Your task to perform on an android device: snooze an email in the gmail app Image 0: 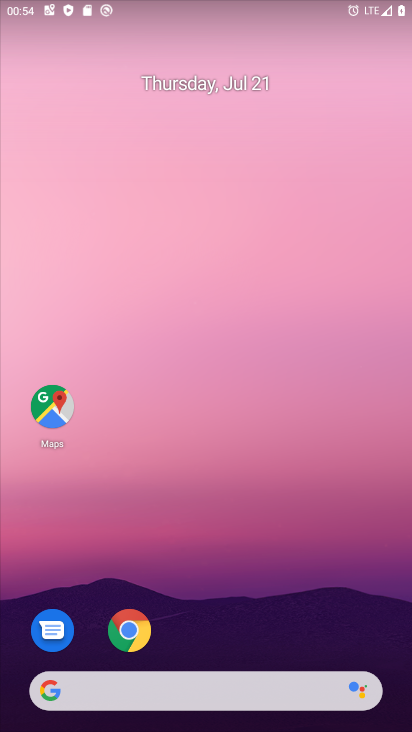
Step 0: drag from (151, 616) to (210, 252)
Your task to perform on an android device: snooze an email in the gmail app Image 1: 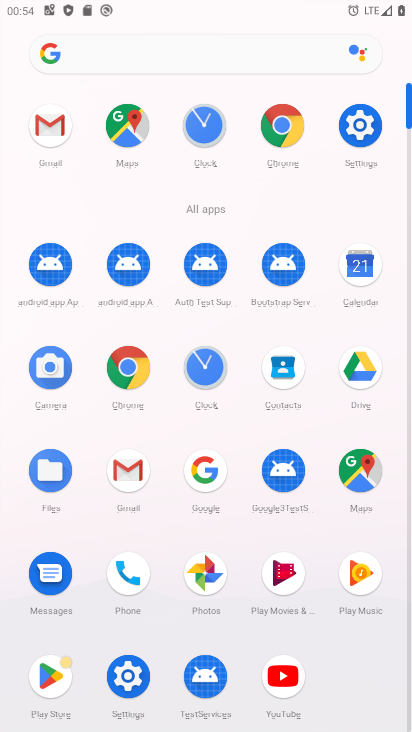
Step 1: click (61, 127)
Your task to perform on an android device: snooze an email in the gmail app Image 2: 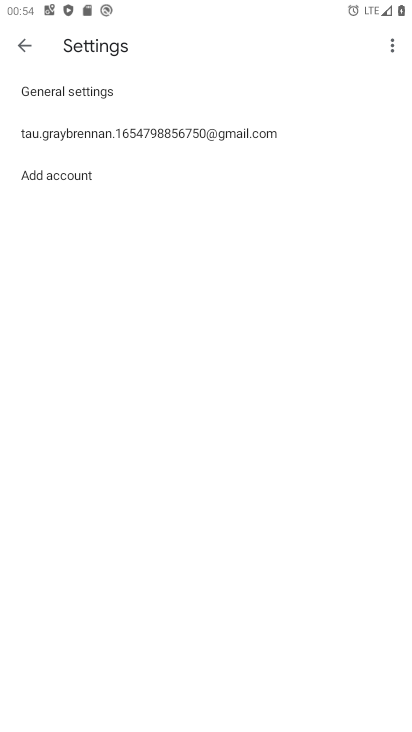
Step 2: click (32, 46)
Your task to perform on an android device: snooze an email in the gmail app Image 3: 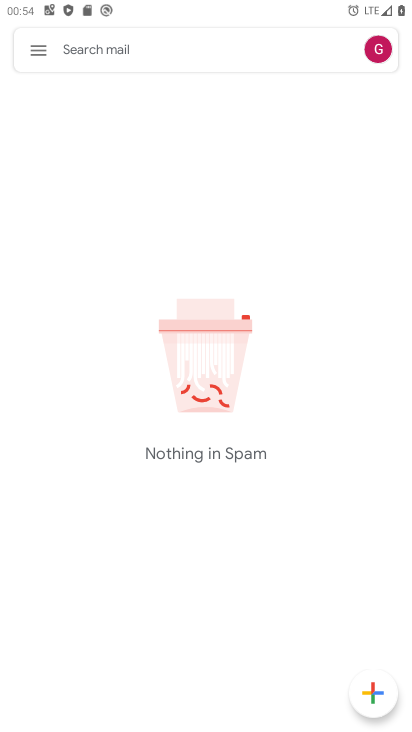
Step 3: click (32, 46)
Your task to perform on an android device: snooze an email in the gmail app Image 4: 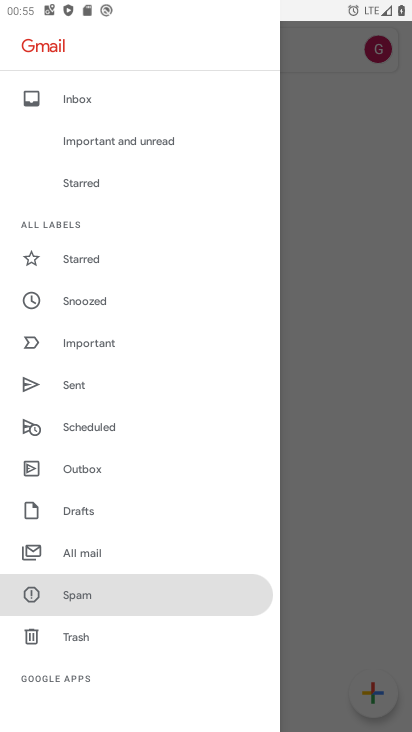
Step 4: click (90, 312)
Your task to perform on an android device: snooze an email in the gmail app Image 5: 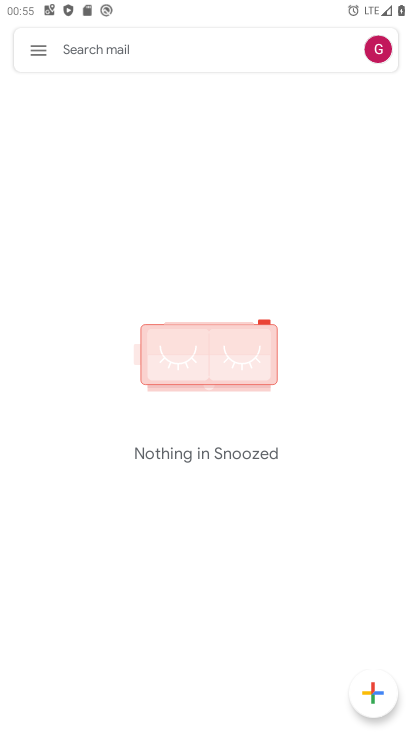
Step 5: click (45, 60)
Your task to perform on an android device: snooze an email in the gmail app Image 6: 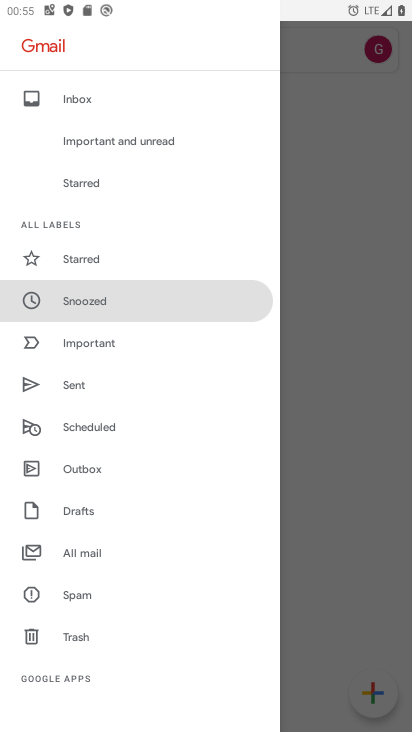
Step 6: click (95, 565)
Your task to perform on an android device: snooze an email in the gmail app Image 7: 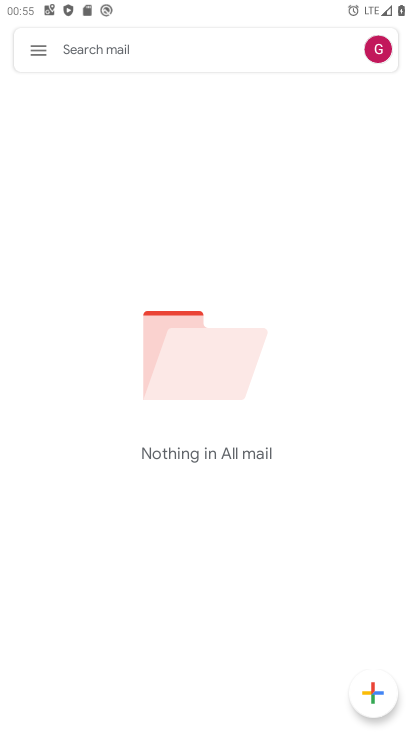
Step 7: task complete